Your task to perform on an android device: Open Wikipedia Image 0: 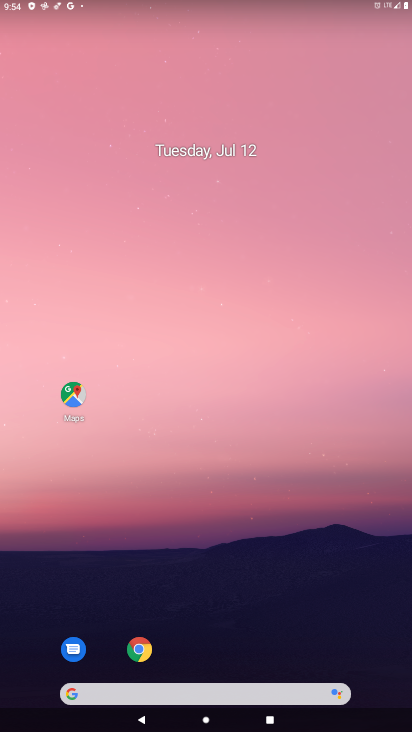
Step 0: drag from (311, 648) to (283, 151)
Your task to perform on an android device: Open Wikipedia Image 1: 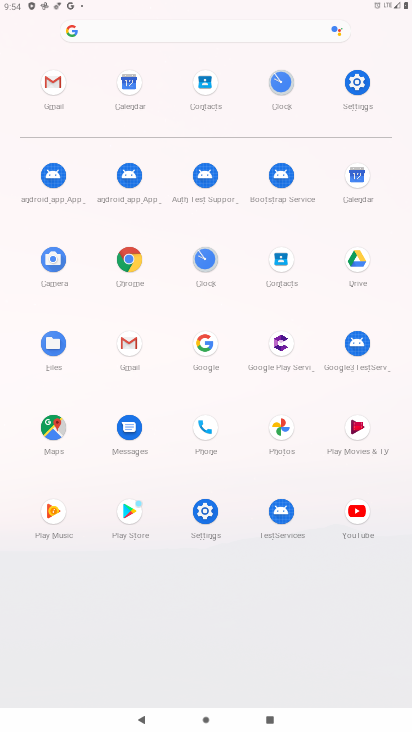
Step 1: click (343, 110)
Your task to perform on an android device: Open Wikipedia Image 2: 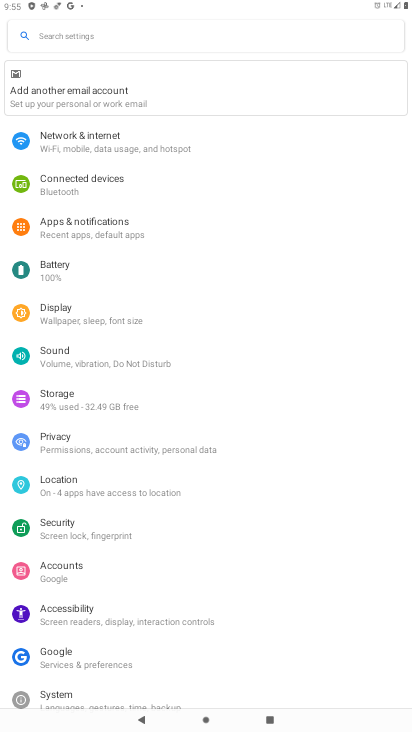
Step 2: press home button
Your task to perform on an android device: Open Wikipedia Image 3: 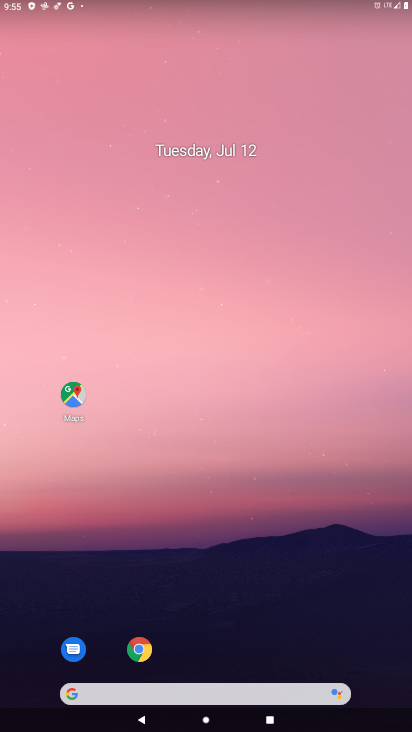
Step 3: drag from (264, 660) to (299, 67)
Your task to perform on an android device: Open Wikipedia Image 4: 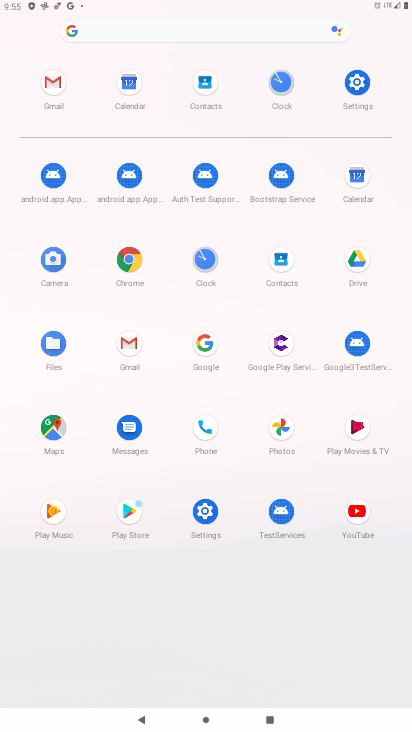
Step 4: click (184, 41)
Your task to perform on an android device: Open Wikipedia Image 5: 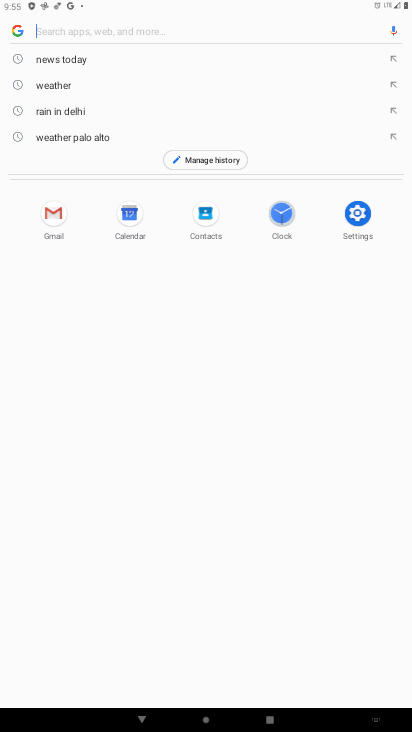
Step 5: type "wiki"
Your task to perform on an android device: Open Wikipedia Image 6: 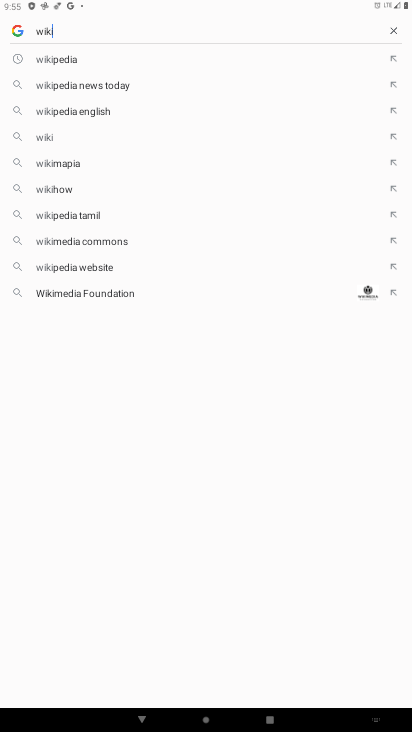
Step 6: click (162, 53)
Your task to perform on an android device: Open Wikipedia Image 7: 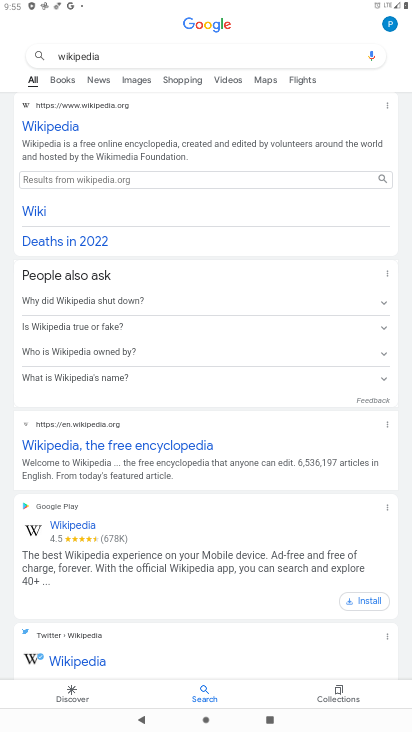
Step 7: task complete